Your task to perform on an android device: Go to location settings Image 0: 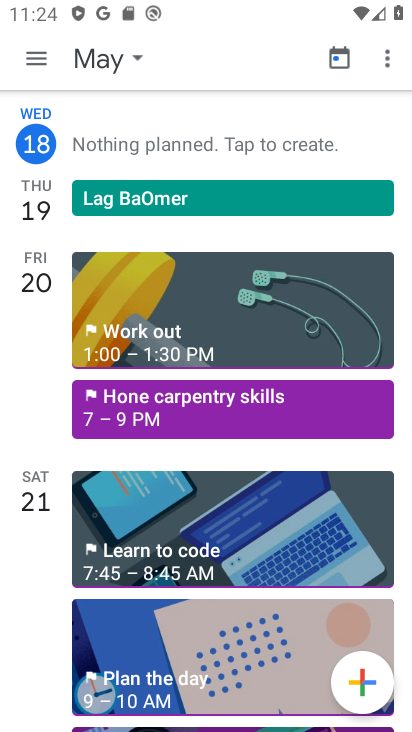
Step 0: press home button
Your task to perform on an android device: Go to location settings Image 1: 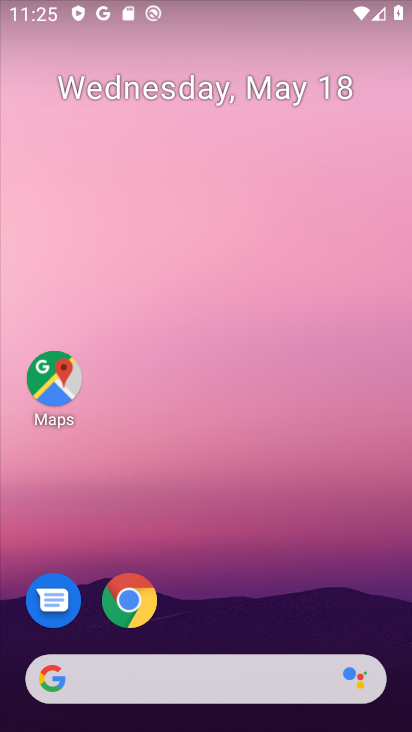
Step 1: drag from (224, 609) to (282, 119)
Your task to perform on an android device: Go to location settings Image 2: 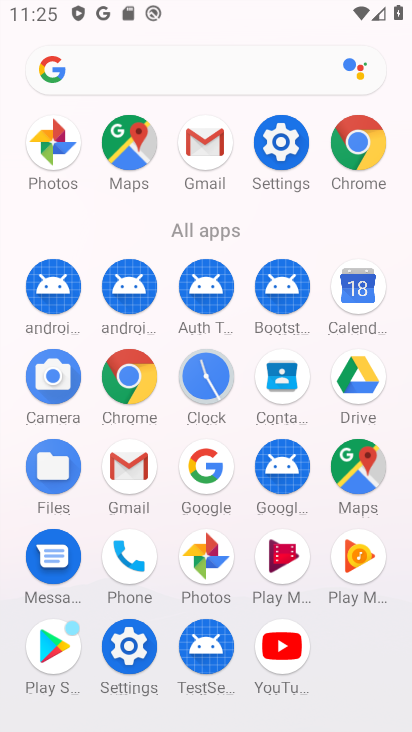
Step 2: click (125, 661)
Your task to perform on an android device: Go to location settings Image 3: 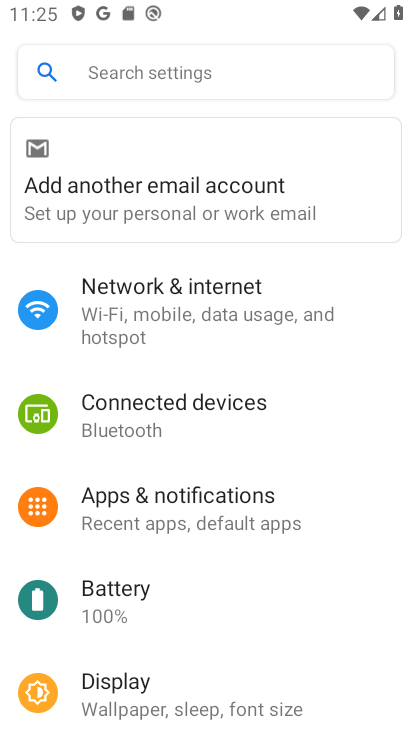
Step 3: drag from (161, 629) to (202, 363)
Your task to perform on an android device: Go to location settings Image 4: 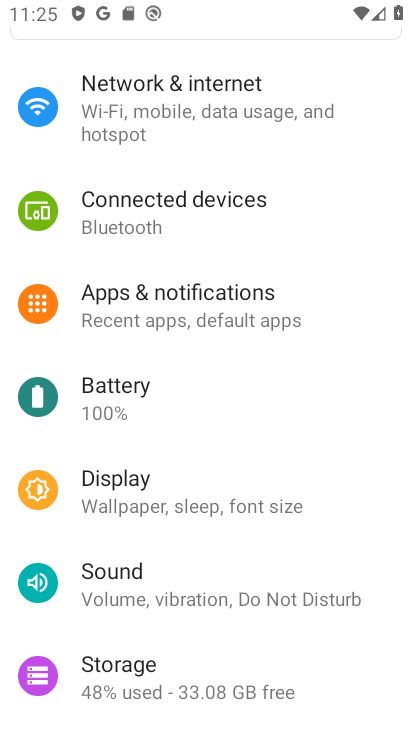
Step 4: drag from (171, 573) to (213, 339)
Your task to perform on an android device: Go to location settings Image 5: 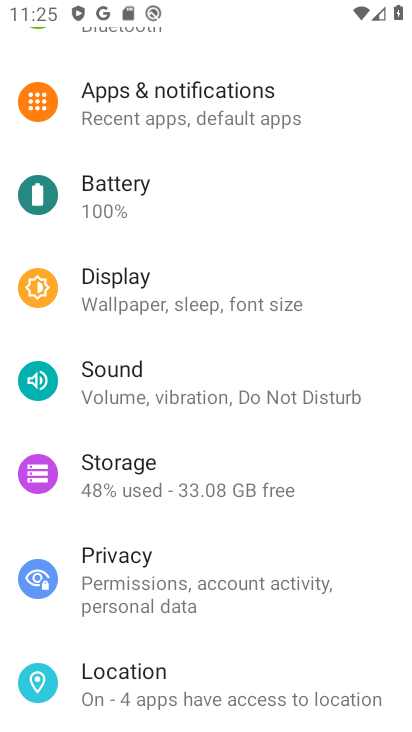
Step 5: click (145, 684)
Your task to perform on an android device: Go to location settings Image 6: 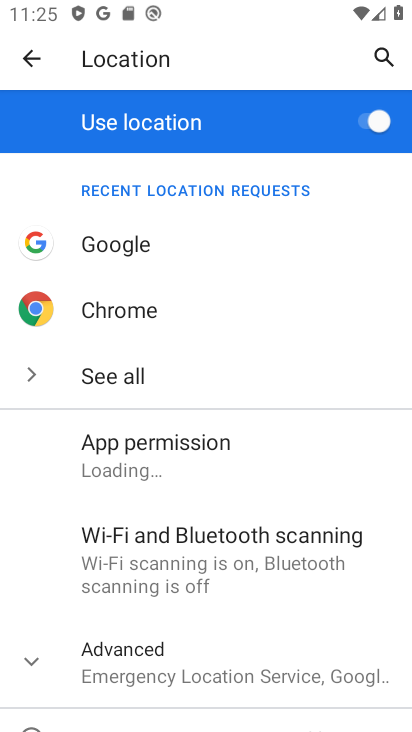
Step 6: task complete